Your task to perform on an android device: set an alarm Image 0: 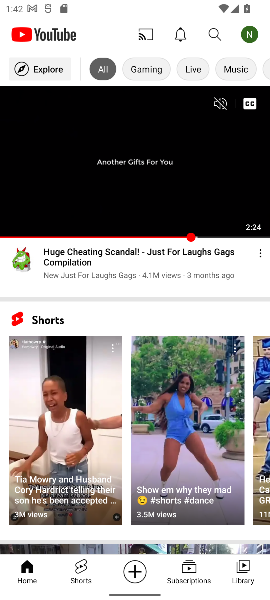
Step 0: task complete